Your task to perform on an android device: Open accessibility settings Image 0: 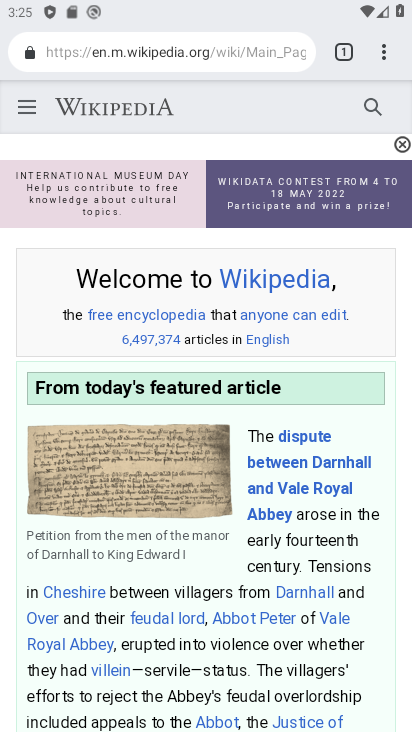
Step 0: press home button
Your task to perform on an android device: Open accessibility settings Image 1: 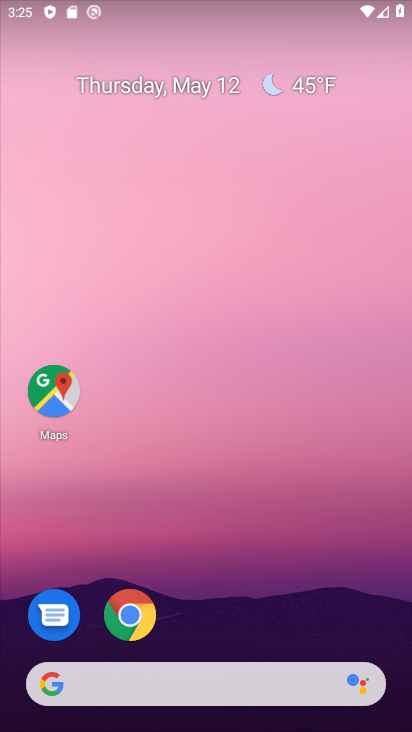
Step 1: drag from (363, 633) to (315, 57)
Your task to perform on an android device: Open accessibility settings Image 2: 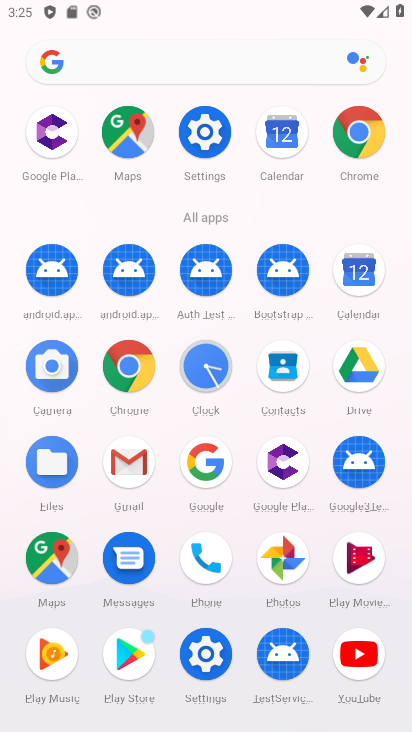
Step 2: click (205, 662)
Your task to perform on an android device: Open accessibility settings Image 3: 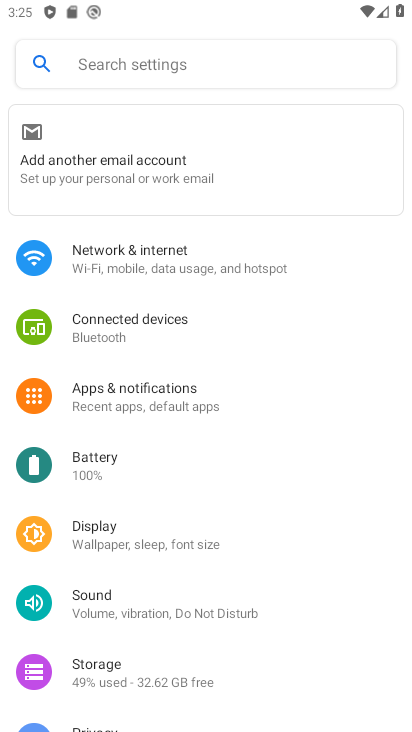
Step 3: drag from (149, 635) to (129, 201)
Your task to perform on an android device: Open accessibility settings Image 4: 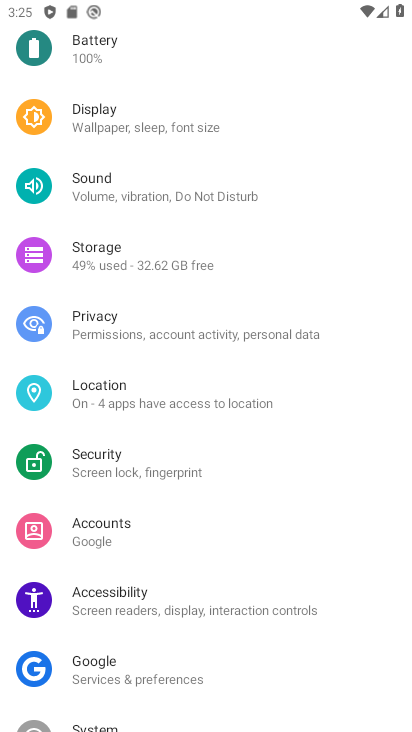
Step 4: click (157, 596)
Your task to perform on an android device: Open accessibility settings Image 5: 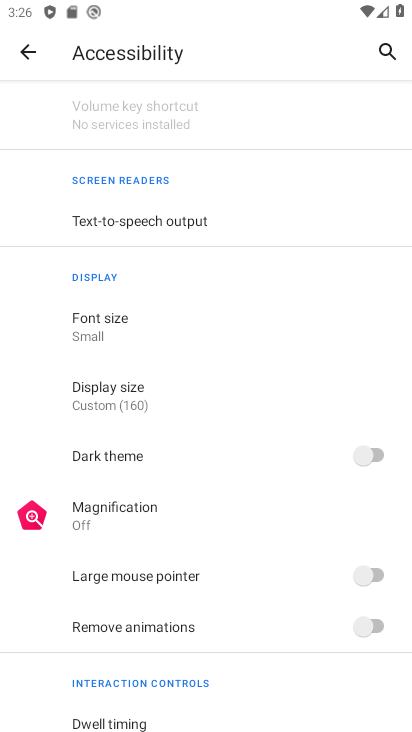
Step 5: task complete